Your task to perform on an android device: Open eBay Image 0: 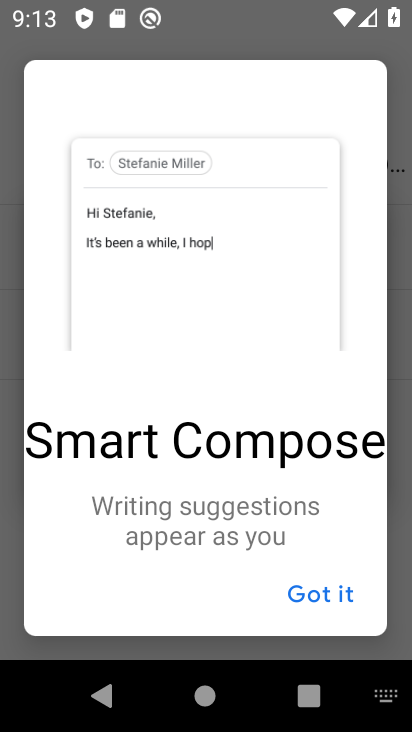
Step 0: press home button
Your task to perform on an android device: Open eBay Image 1: 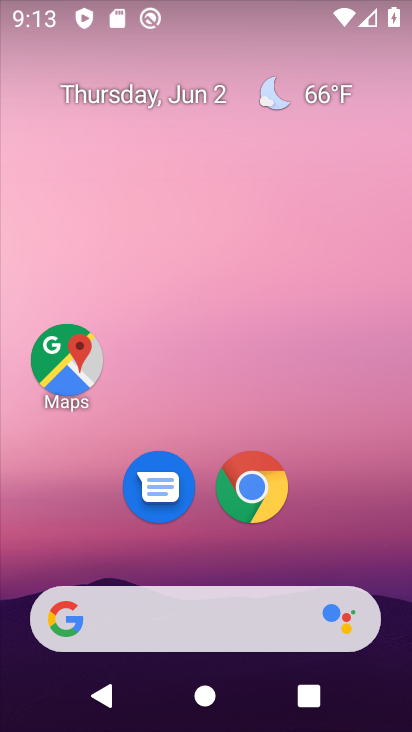
Step 1: click (253, 495)
Your task to perform on an android device: Open eBay Image 2: 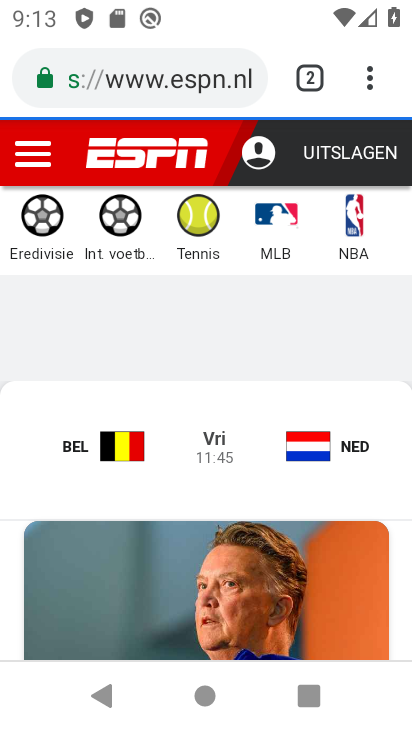
Step 2: click (369, 84)
Your task to perform on an android device: Open eBay Image 3: 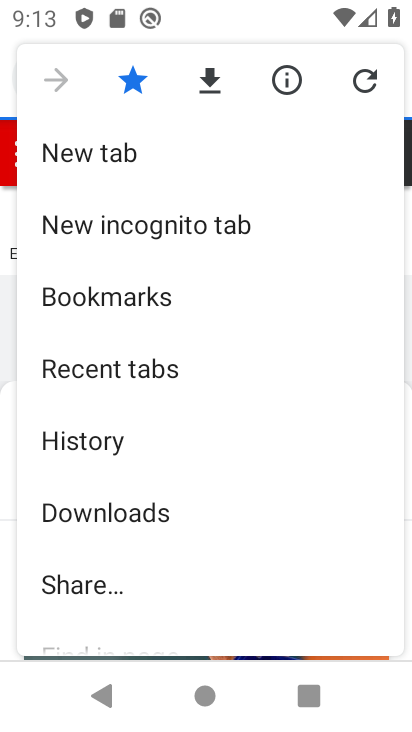
Step 3: click (81, 149)
Your task to perform on an android device: Open eBay Image 4: 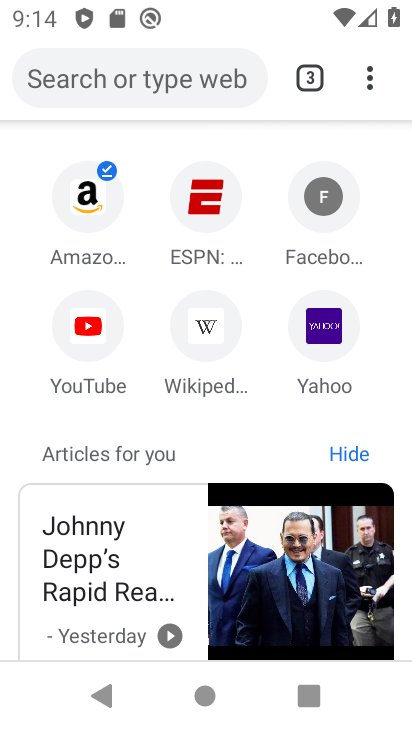
Step 4: click (161, 79)
Your task to perform on an android device: Open eBay Image 5: 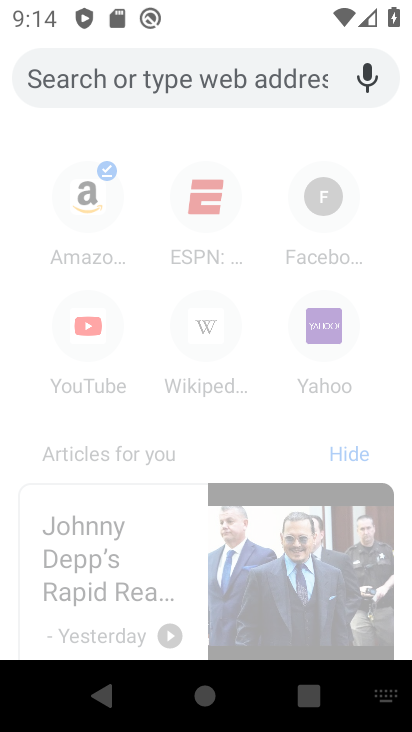
Step 5: type "eBay"
Your task to perform on an android device: Open eBay Image 6: 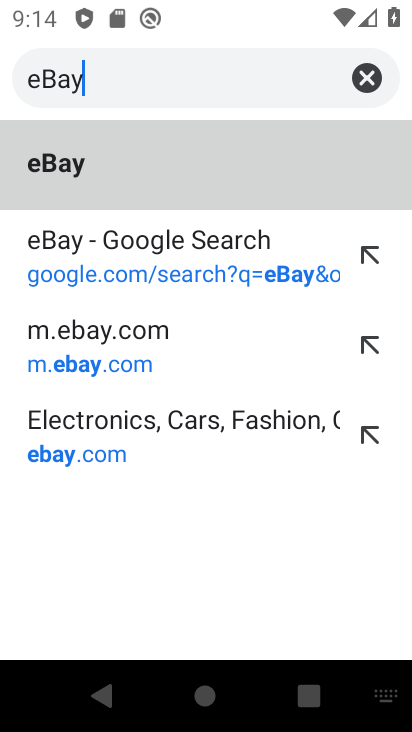
Step 6: click (91, 172)
Your task to perform on an android device: Open eBay Image 7: 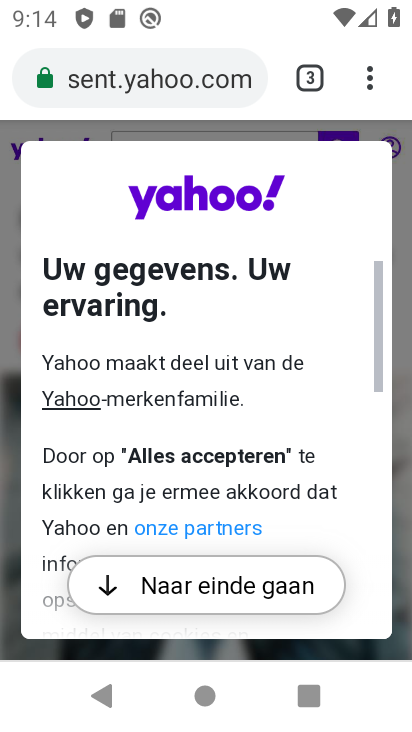
Step 7: drag from (184, 531) to (186, 233)
Your task to perform on an android device: Open eBay Image 8: 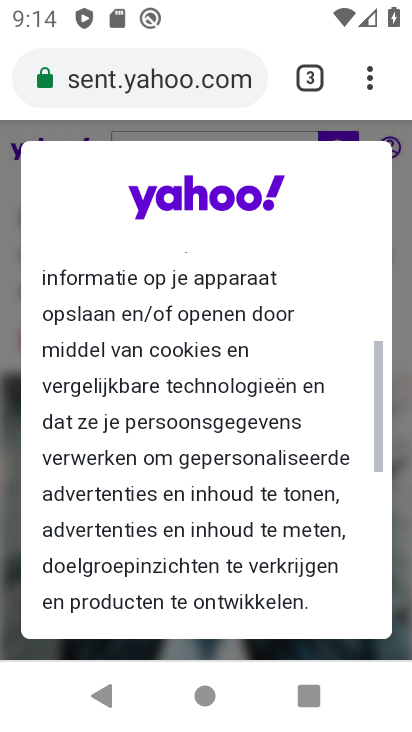
Step 8: drag from (173, 607) to (174, 202)
Your task to perform on an android device: Open eBay Image 9: 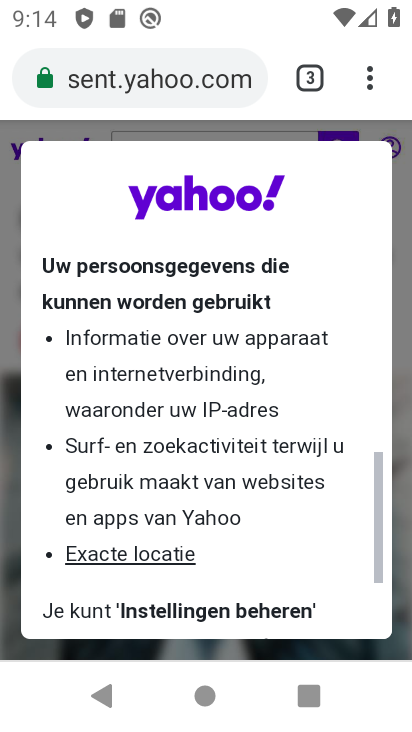
Step 9: drag from (208, 596) to (212, 277)
Your task to perform on an android device: Open eBay Image 10: 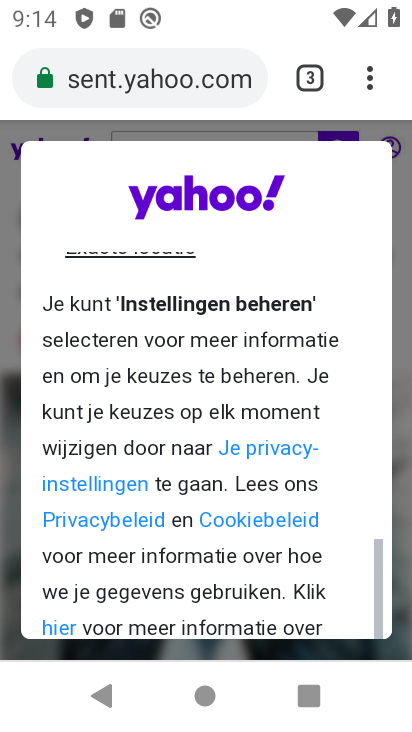
Step 10: drag from (240, 610) to (240, 185)
Your task to perform on an android device: Open eBay Image 11: 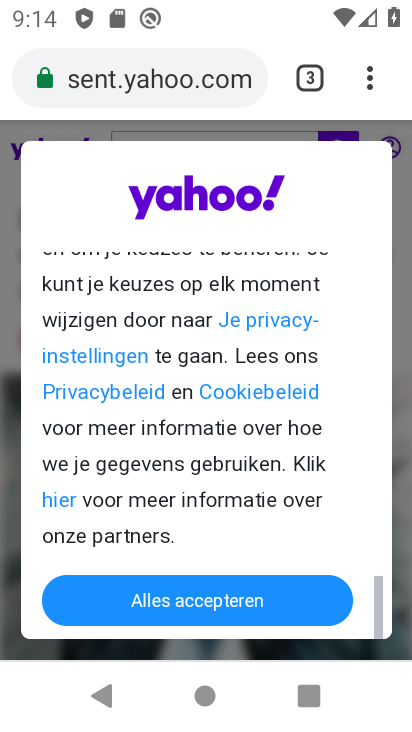
Step 11: click (199, 598)
Your task to perform on an android device: Open eBay Image 12: 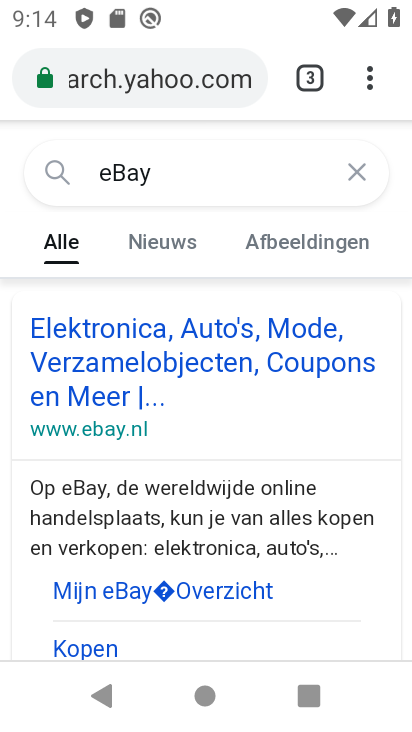
Step 12: click (122, 370)
Your task to perform on an android device: Open eBay Image 13: 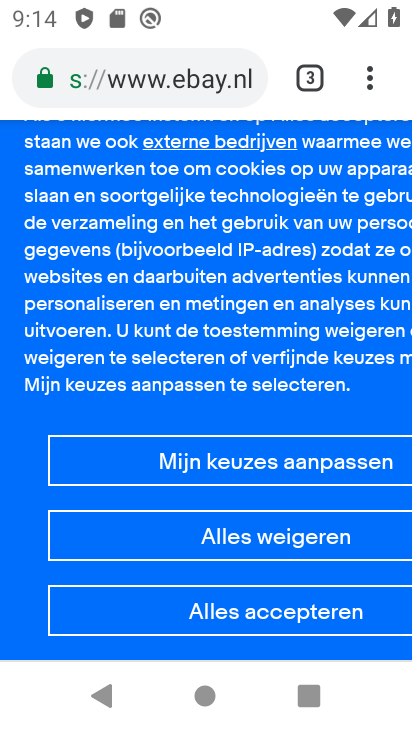
Step 13: task complete